Your task to perform on an android device: Open settings on Google Maps Image 0: 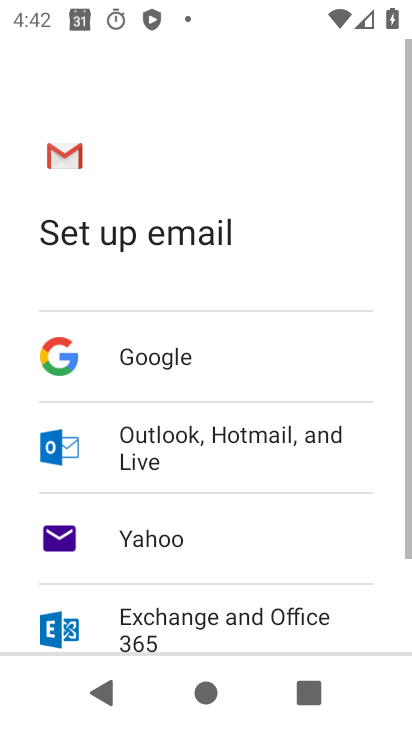
Step 0: press home button
Your task to perform on an android device: Open settings on Google Maps Image 1: 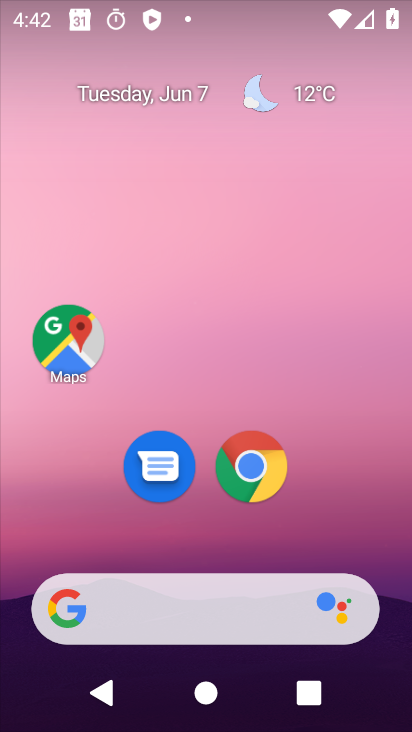
Step 1: click (48, 324)
Your task to perform on an android device: Open settings on Google Maps Image 2: 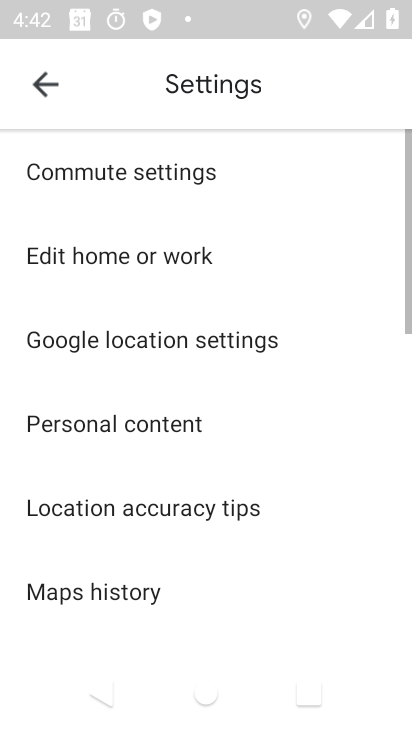
Step 2: click (41, 100)
Your task to perform on an android device: Open settings on Google Maps Image 3: 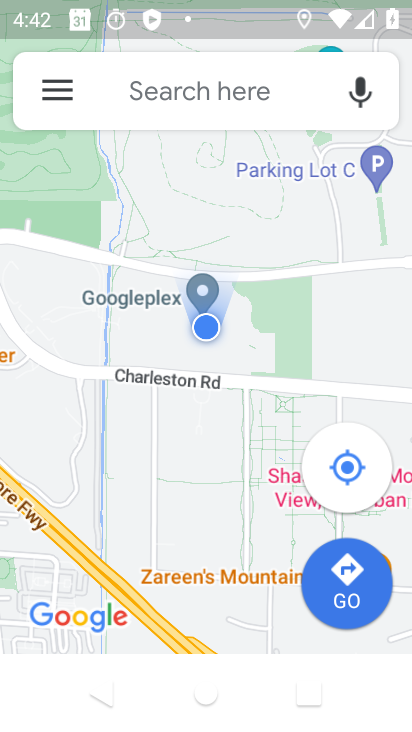
Step 3: click (59, 100)
Your task to perform on an android device: Open settings on Google Maps Image 4: 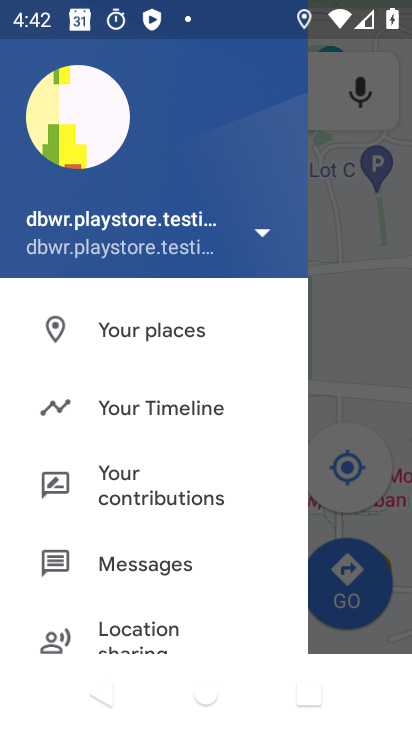
Step 4: drag from (217, 603) to (191, 188)
Your task to perform on an android device: Open settings on Google Maps Image 5: 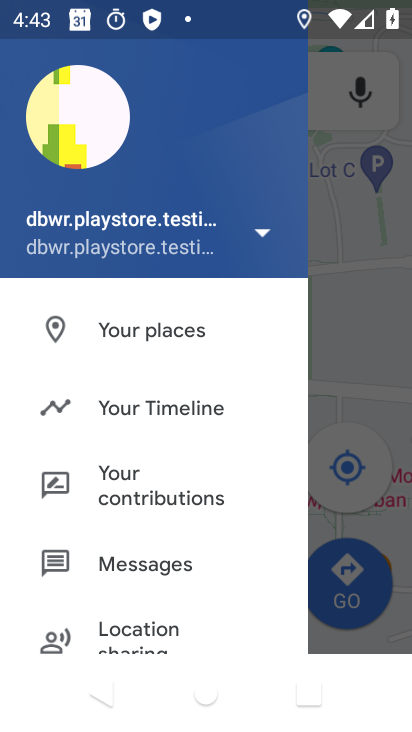
Step 5: drag from (153, 596) to (136, 65)
Your task to perform on an android device: Open settings on Google Maps Image 6: 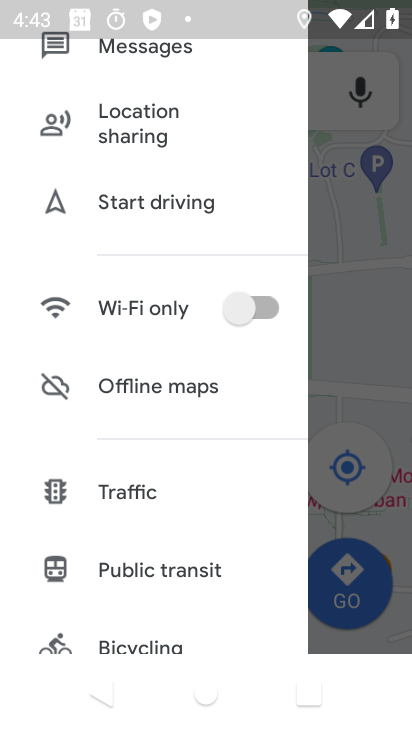
Step 6: drag from (132, 597) to (120, 73)
Your task to perform on an android device: Open settings on Google Maps Image 7: 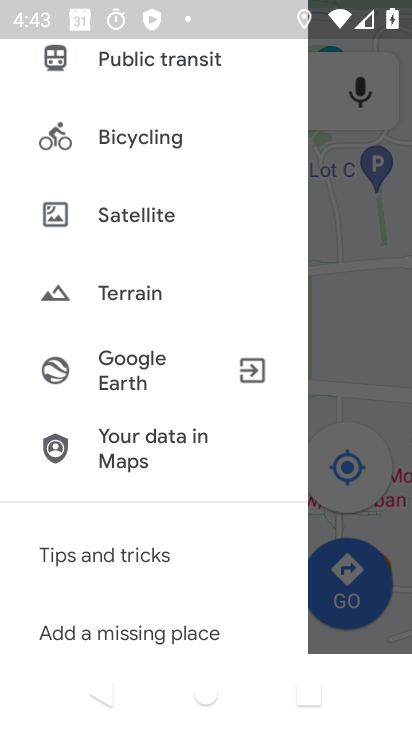
Step 7: drag from (160, 588) to (126, 194)
Your task to perform on an android device: Open settings on Google Maps Image 8: 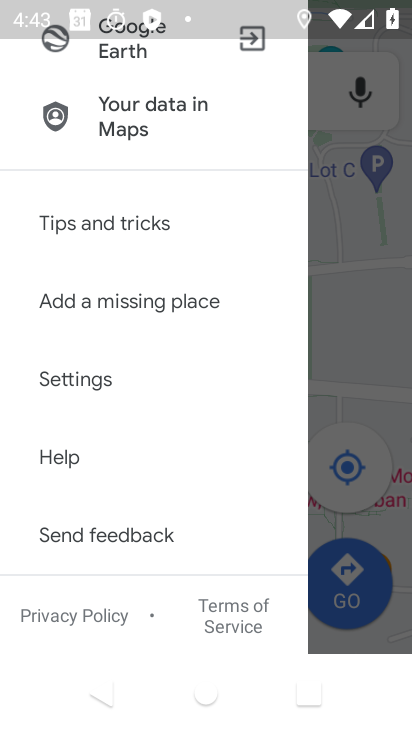
Step 8: click (132, 406)
Your task to perform on an android device: Open settings on Google Maps Image 9: 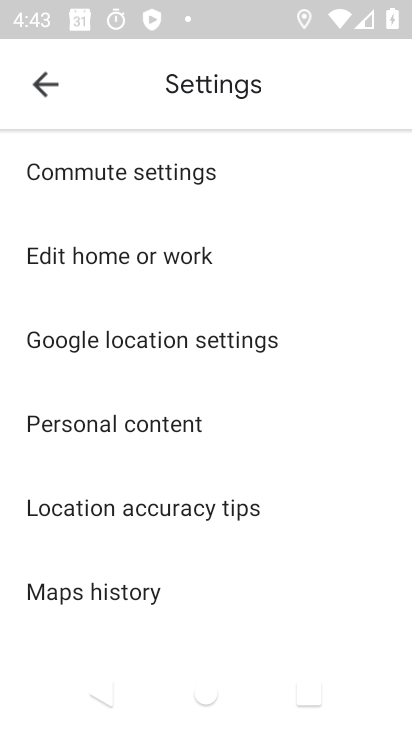
Step 9: task complete